Your task to perform on an android device: Open Google Chrome Image 0: 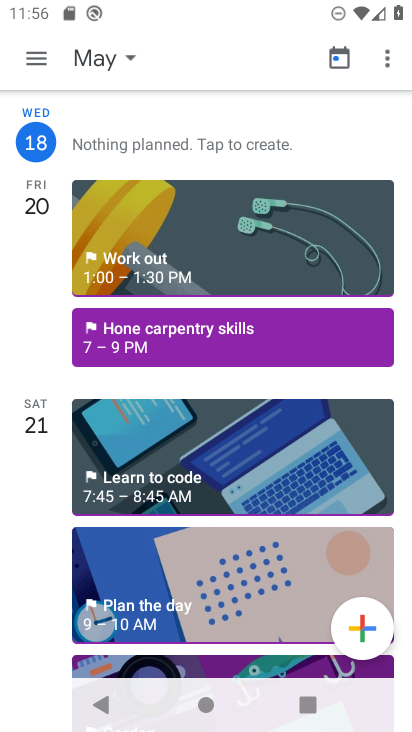
Step 0: press home button
Your task to perform on an android device: Open Google Chrome Image 1: 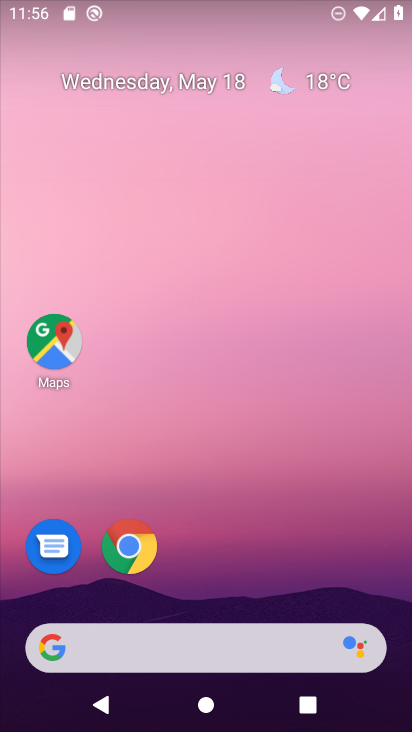
Step 1: click (128, 548)
Your task to perform on an android device: Open Google Chrome Image 2: 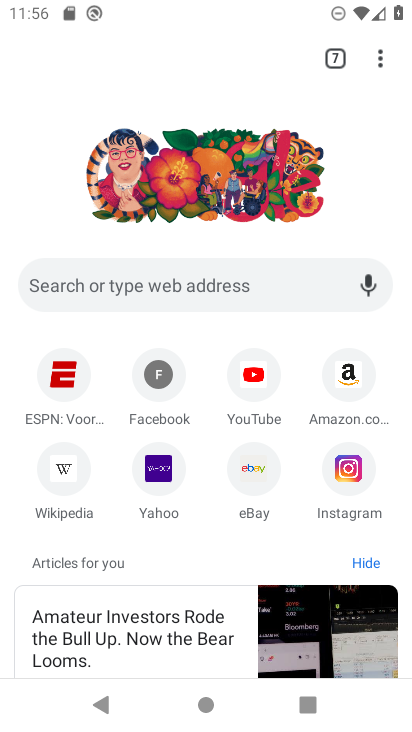
Step 2: task complete